Your task to perform on an android device: see creations saved in the google photos Image 0: 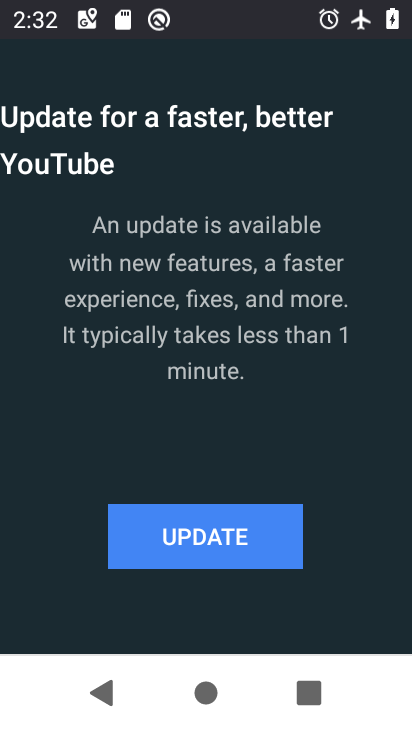
Step 0: press back button
Your task to perform on an android device: see creations saved in the google photos Image 1: 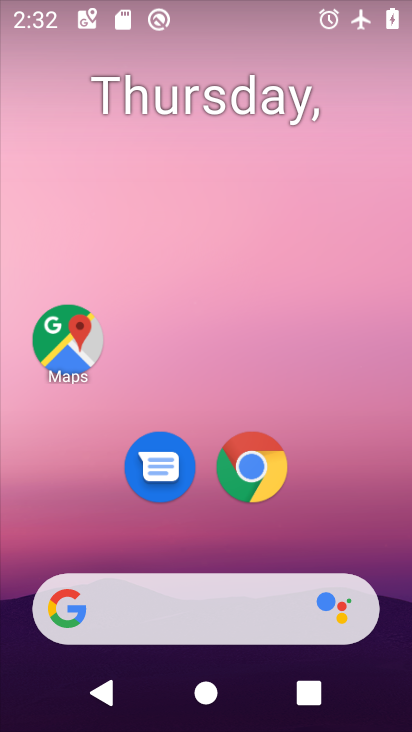
Step 1: drag from (200, 580) to (144, 1)
Your task to perform on an android device: see creations saved in the google photos Image 2: 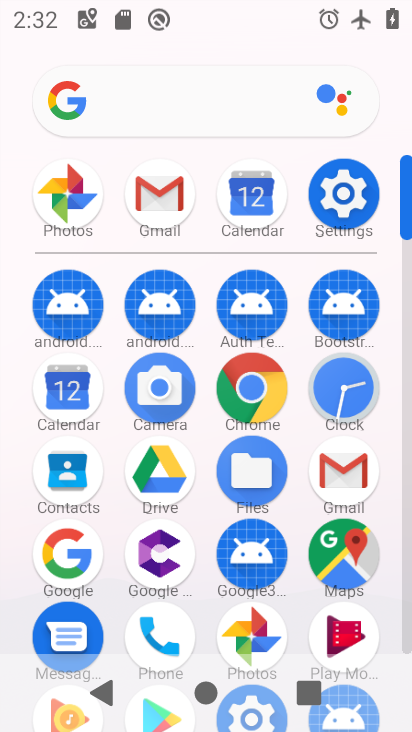
Step 2: click (252, 621)
Your task to perform on an android device: see creations saved in the google photos Image 3: 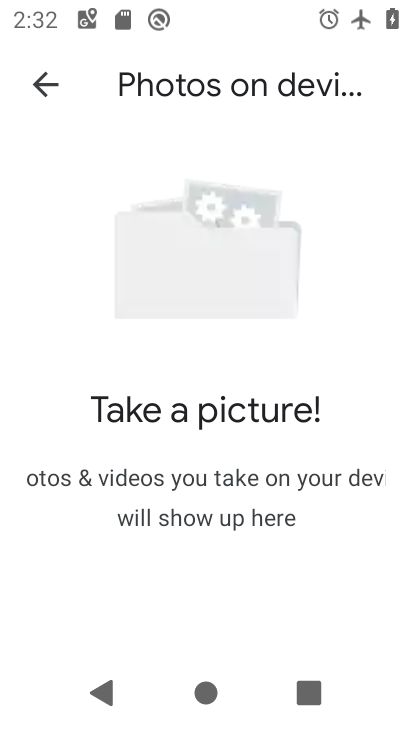
Step 3: click (58, 83)
Your task to perform on an android device: see creations saved in the google photos Image 4: 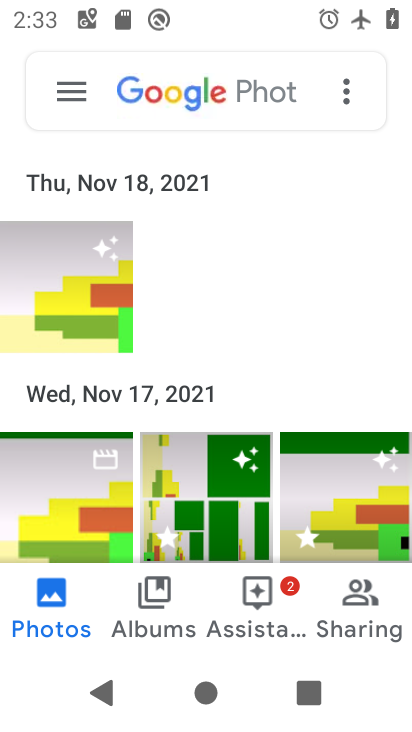
Step 4: click (170, 100)
Your task to perform on an android device: see creations saved in the google photos Image 5: 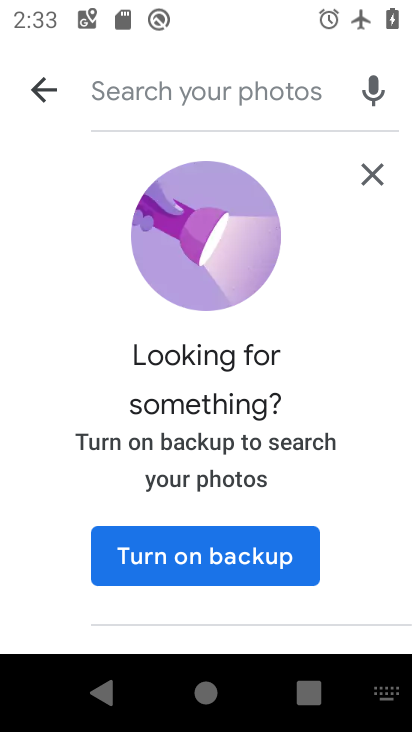
Step 5: click (372, 170)
Your task to perform on an android device: see creations saved in the google photos Image 6: 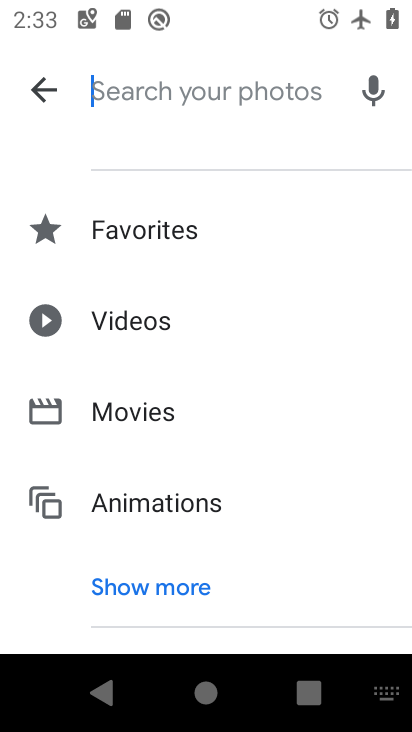
Step 6: click (158, 595)
Your task to perform on an android device: see creations saved in the google photos Image 7: 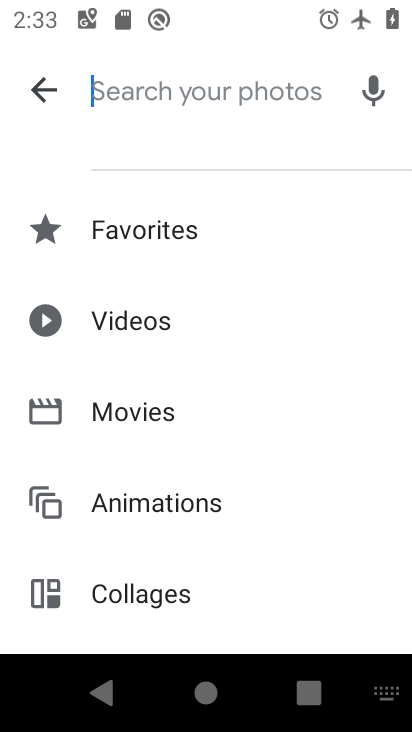
Step 7: drag from (196, 559) to (196, 101)
Your task to perform on an android device: see creations saved in the google photos Image 8: 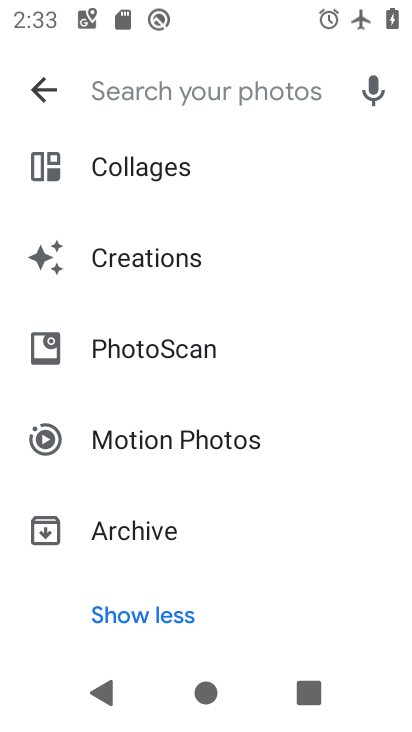
Step 8: click (151, 259)
Your task to perform on an android device: see creations saved in the google photos Image 9: 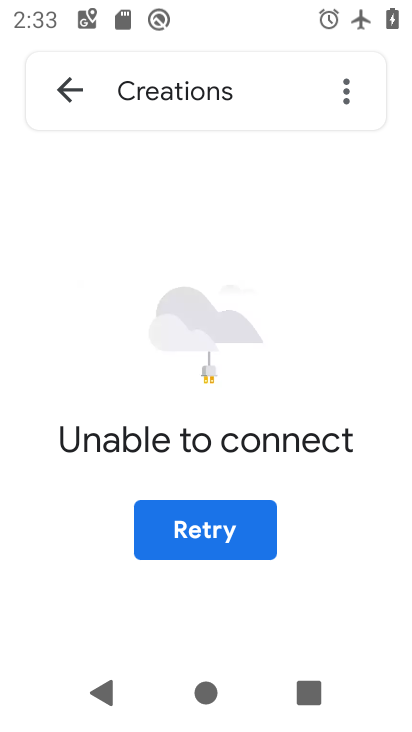
Step 9: task complete